Your task to perform on an android device: Search for vegetarian restaurants on Maps Image 0: 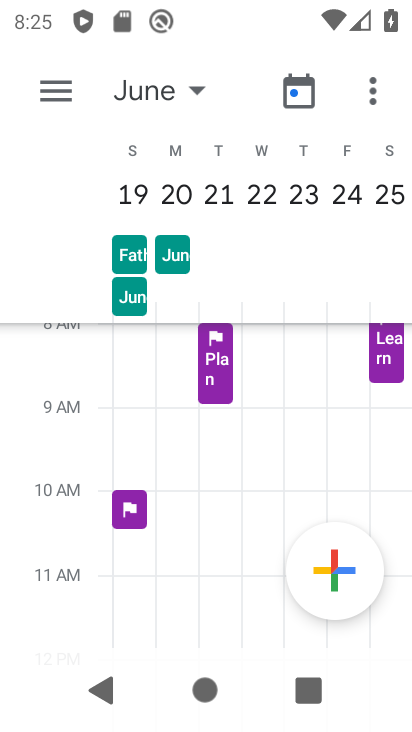
Step 0: press home button
Your task to perform on an android device: Search for vegetarian restaurants on Maps Image 1: 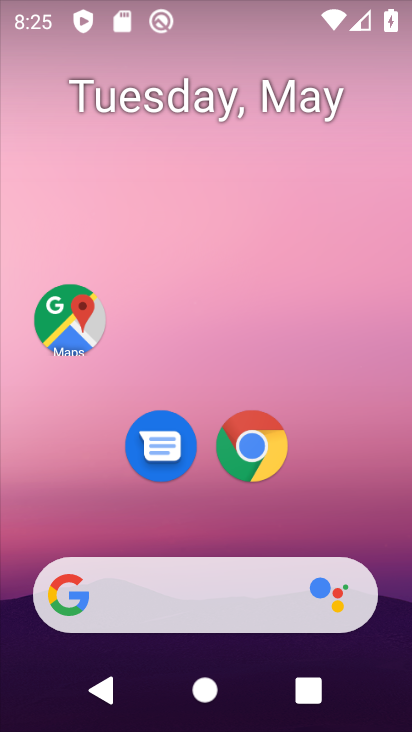
Step 1: click (71, 319)
Your task to perform on an android device: Search for vegetarian restaurants on Maps Image 2: 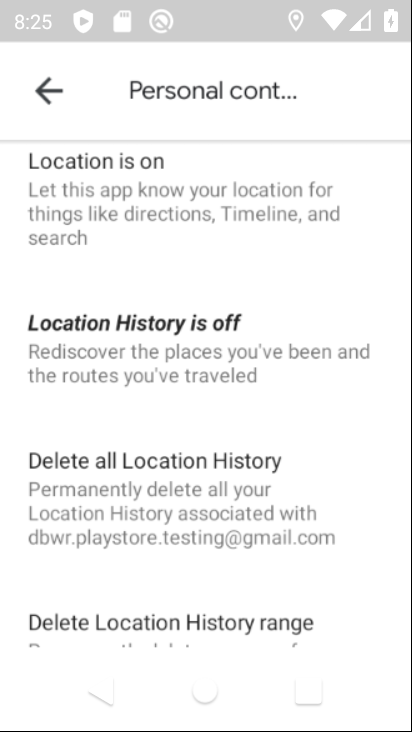
Step 2: click (49, 96)
Your task to perform on an android device: Search for vegetarian restaurants on Maps Image 3: 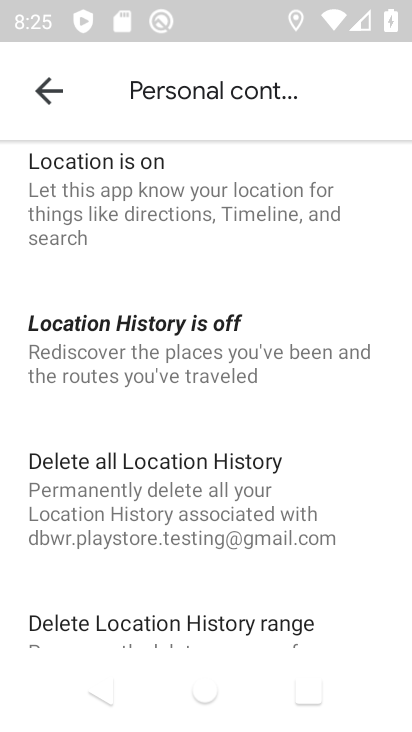
Step 3: click (41, 94)
Your task to perform on an android device: Search for vegetarian restaurants on Maps Image 4: 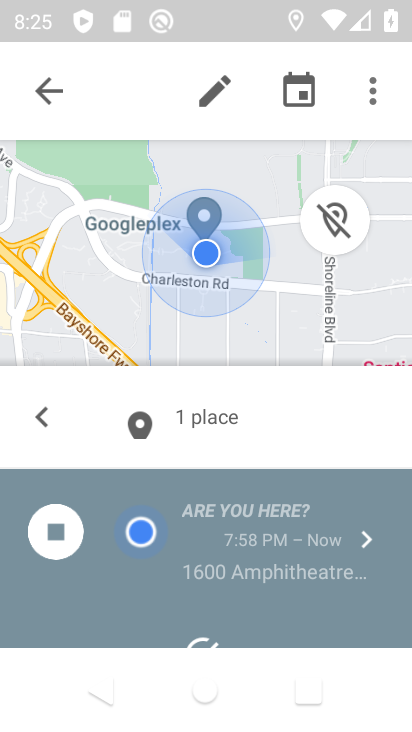
Step 4: click (41, 94)
Your task to perform on an android device: Search for vegetarian restaurants on Maps Image 5: 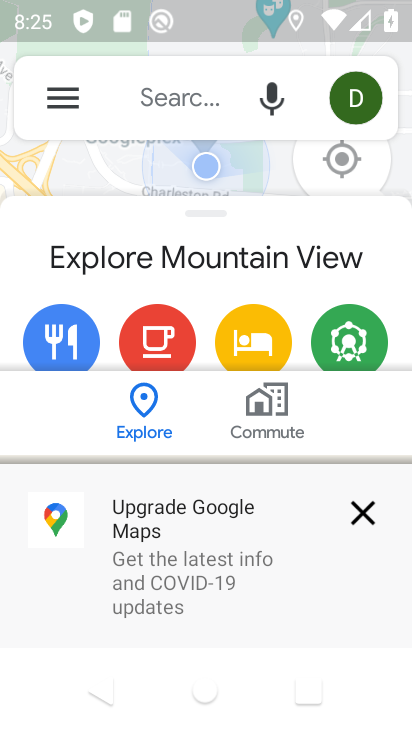
Step 5: click (153, 99)
Your task to perform on an android device: Search for vegetarian restaurants on Maps Image 6: 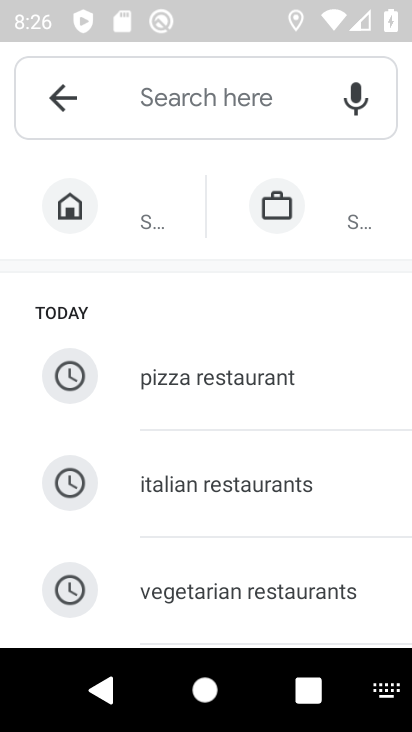
Step 6: type "vegetarian restaurants"
Your task to perform on an android device: Search for vegetarian restaurants on Maps Image 7: 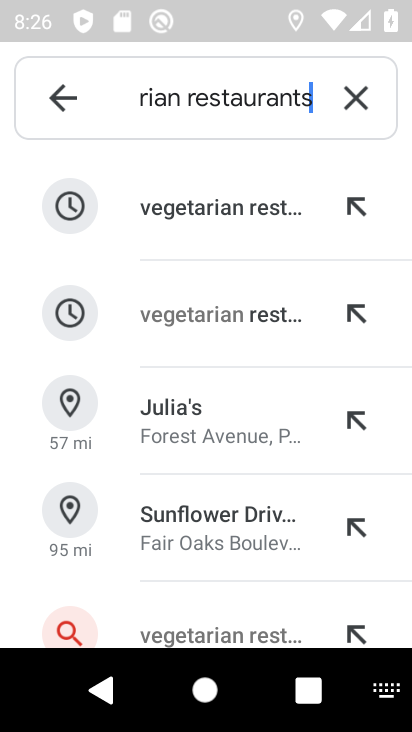
Step 7: click (204, 218)
Your task to perform on an android device: Search for vegetarian restaurants on Maps Image 8: 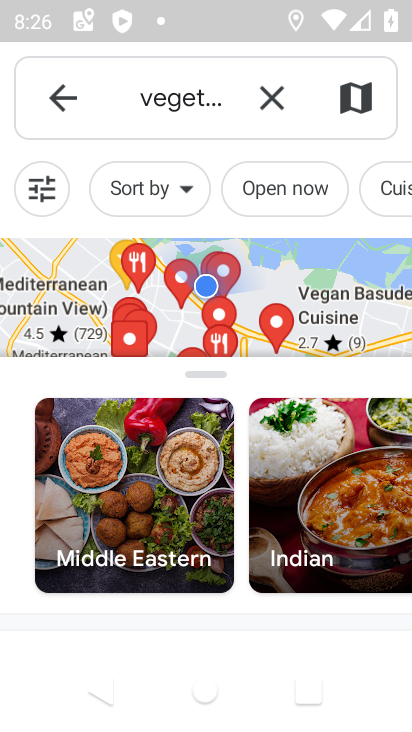
Step 8: task complete